Your task to perform on an android device: turn vacation reply on in the gmail app Image 0: 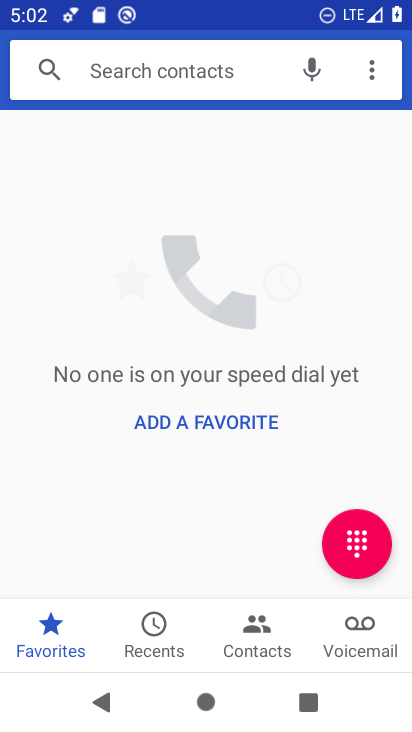
Step 0: press home button
Your task to perform on an android device: turn vacation reply on in the gmail app Image 1: 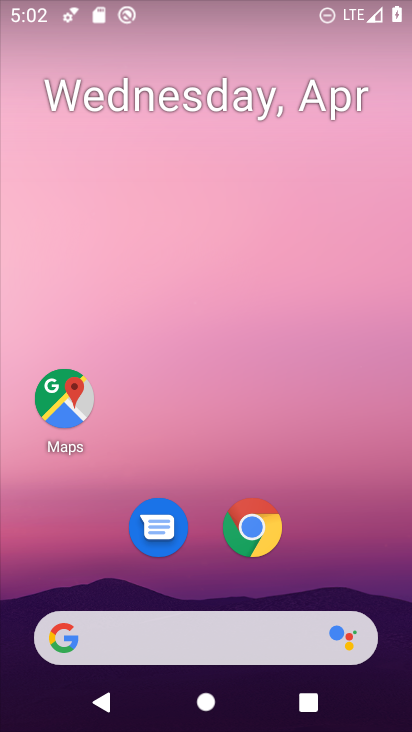
Step 1: drag from (346, 566) to (319, 4)
Your task to perform on an android device: turn vacation reply on in the gmail app Image 2: 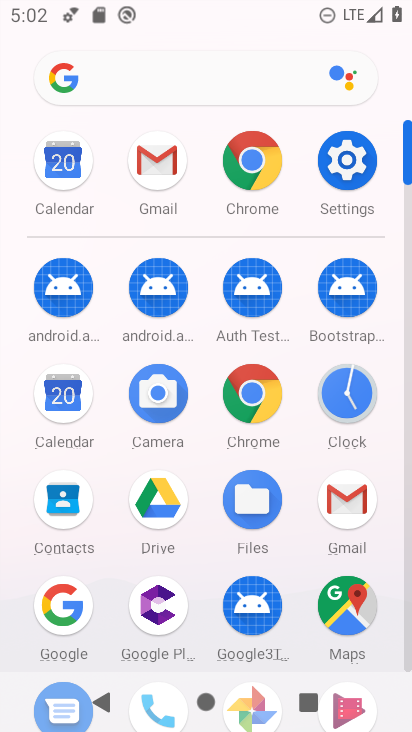
Step 2: click (160, 171)
Your task to perform on an android device: turn vacation reply on in the gmail app Image 3: 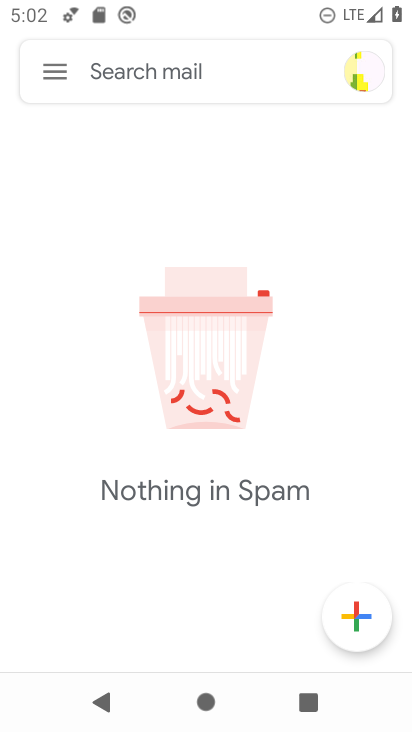
Step 3: click (48, 74)
Your task to perform on an android device: turn vacation reply on in the gmail app Image 4: 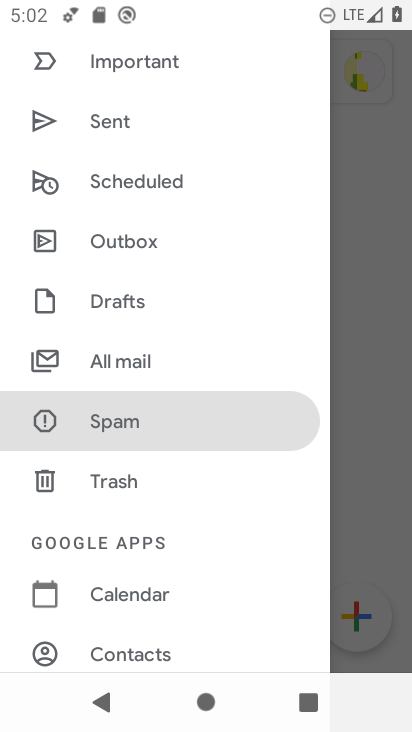
Step 4: drag from (173, 558) to (166, 73)
Your task to perform on an android device: turn vacation reply on in the gmail app Image 5: 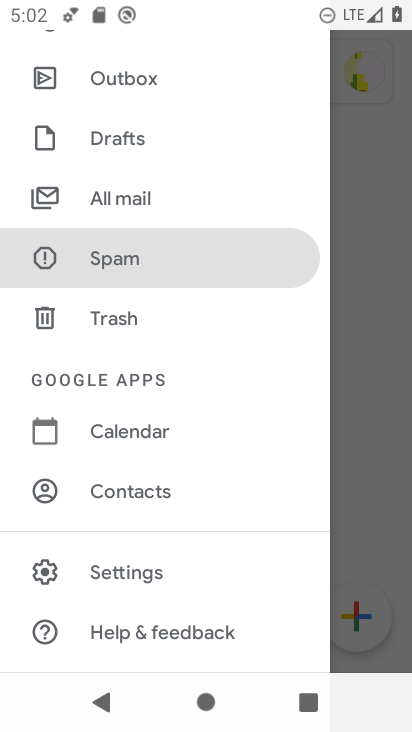
Step 5: click (126, 575)
Your task to perform on an android device: turn vacation reply on in the gmail app Image 6: 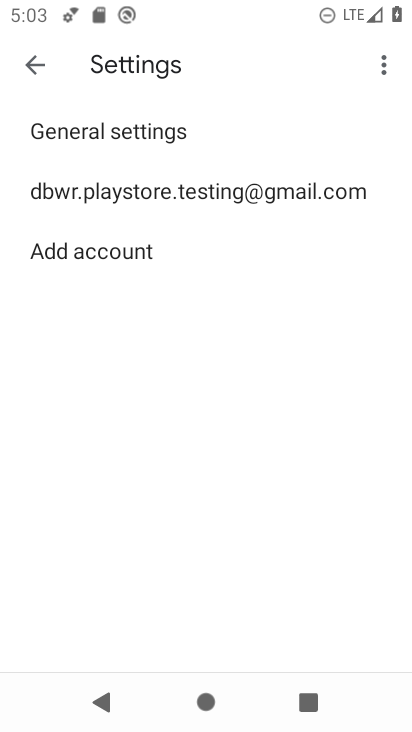
Step 6: click (130, 194)
Your task to perform on an android device: turn vacation reply on in the gmail app Image 7: 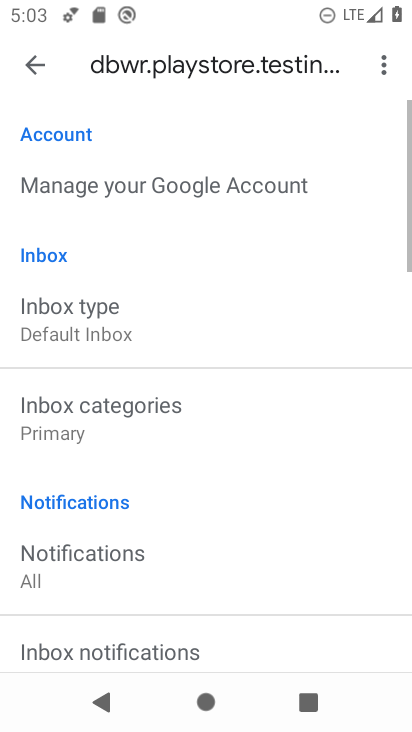
Step 7: drag from (214, 592) to (159, 63)
Your task to perform on an android device: turn vacation reply on in the gmail app Image 8: 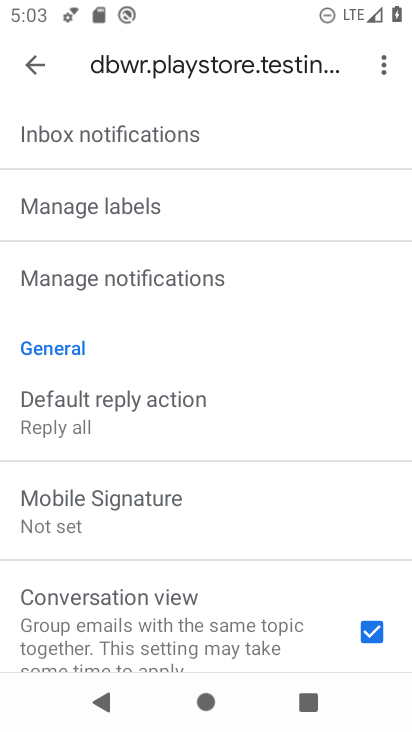
Step 8: drag from (179, 609) to (129, 153)
Your task to perform on an android device: turn vacation reply on in the gmail app Image 9: 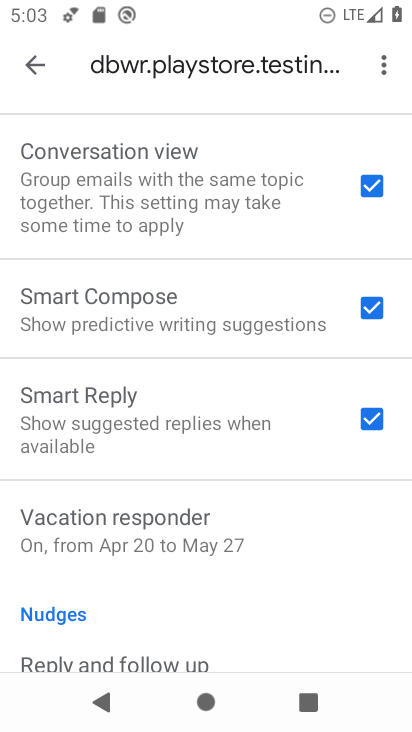
Step 9: click (114, 527)
Your task to perform on an android device: turn vacation reply on in the gmail app Image 10: 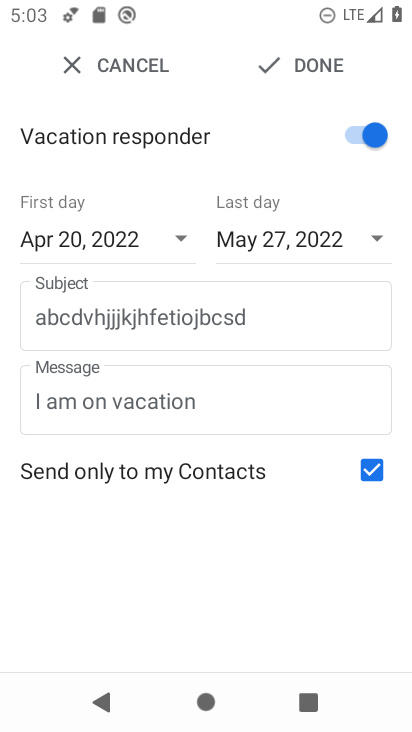
Step 10: click (303, 67)
Your task to perform on an android device: turn vacation reply on in the gmail app Image 11: 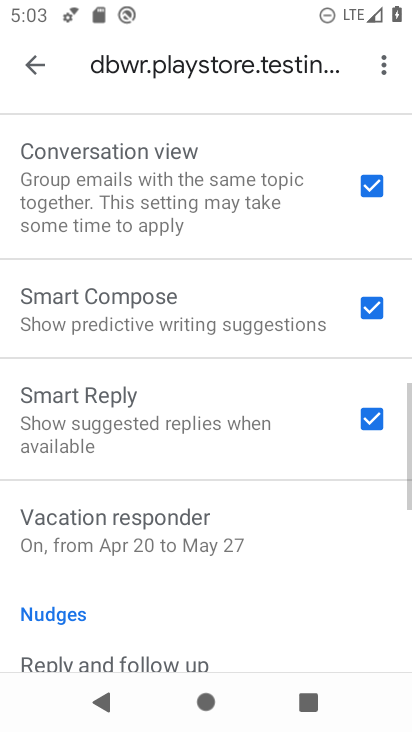
Step 11: task complete